Your task to perform on an android device: Go to network settings Image 0: 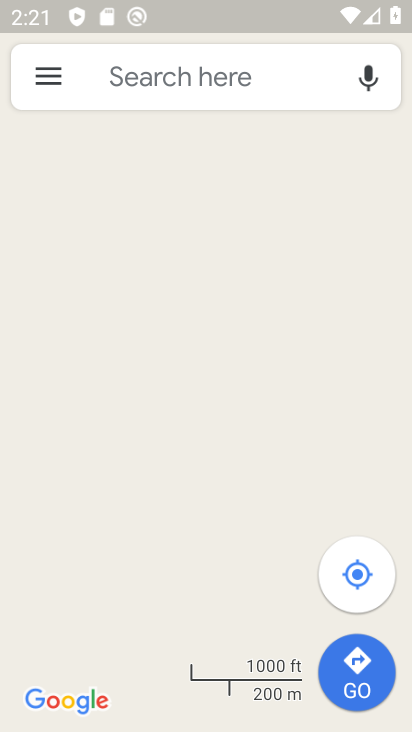
Step 0: press home button
Your task to perform on an android device: Go to network settings Image 1: 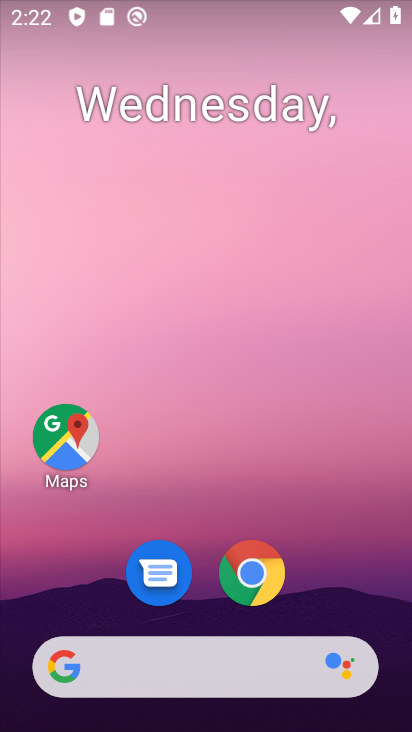
Step 1: drag from (195, 621) to (206, 113)
Your task to perform on an android device: Go to network settings Image 2: 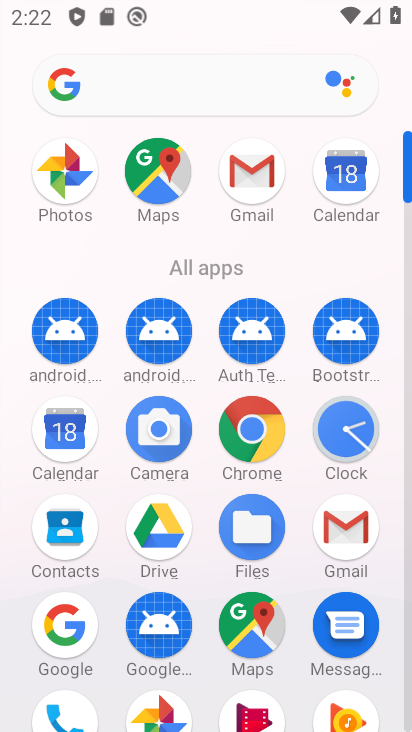
Step 2: drag from (111, 619) to (109, 316)
Your task to perform on an android device: Go to network settings Image 3: 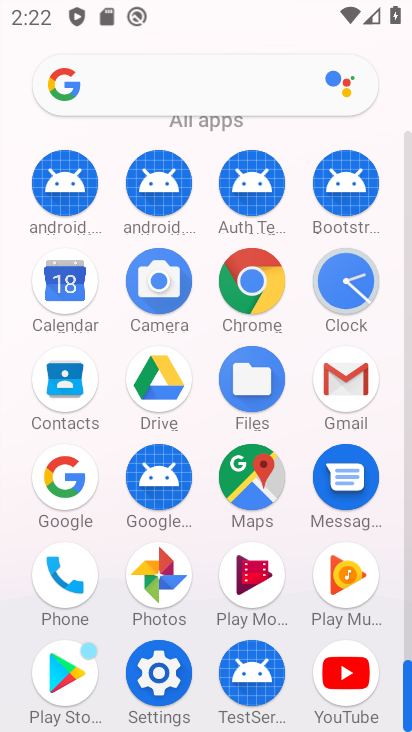
Step 3: click (160, 657)
Your task to perform on an android device: Go to network settings Image 4: 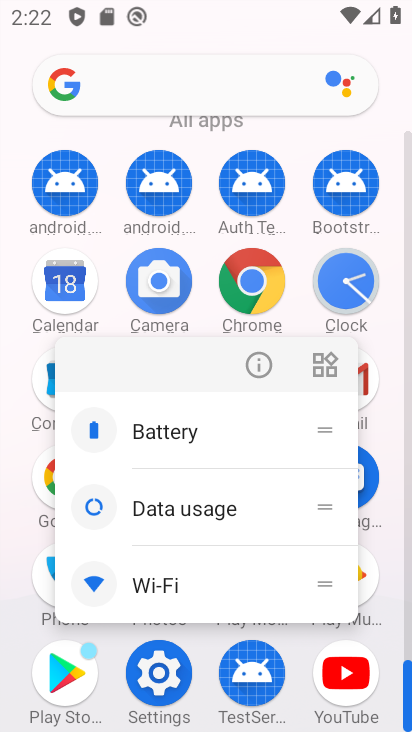
Step 4: click (156, 677)
Your task to perform on an android device: Go to network settings Image 5: 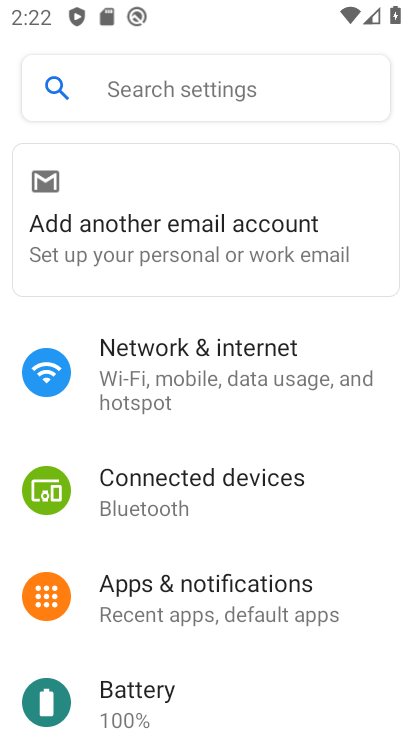
Step 5: click (189, 357)
Your task to perform on an android device: Go to network settings Image 6: 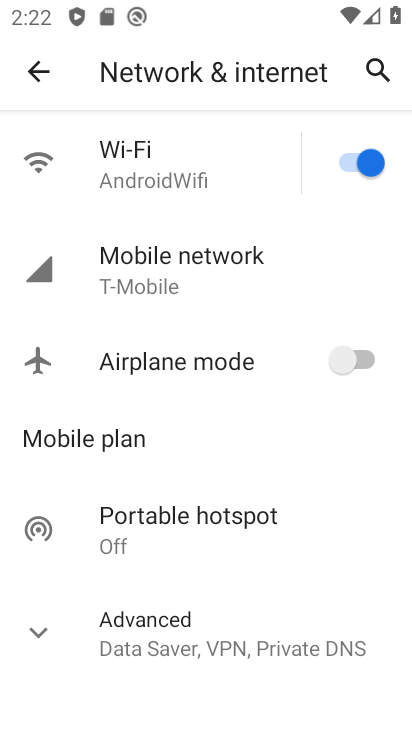
Step 6: click (170, 285)
Your task to perform on an android device: Go to network settings Image 7: 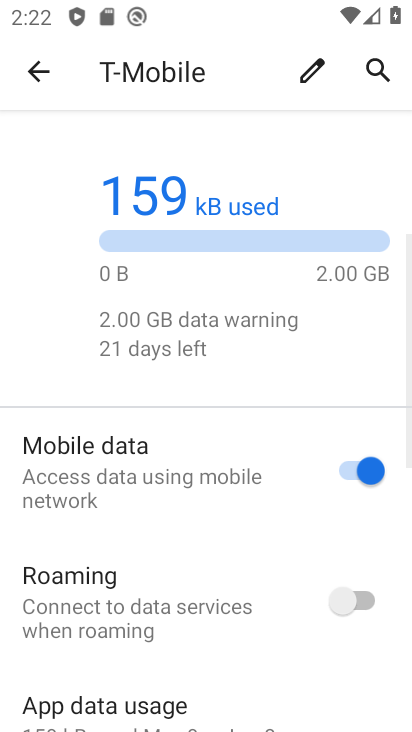
Step 7: task complete